Your task to perform on an android device: Open Google Chrome Image 0: 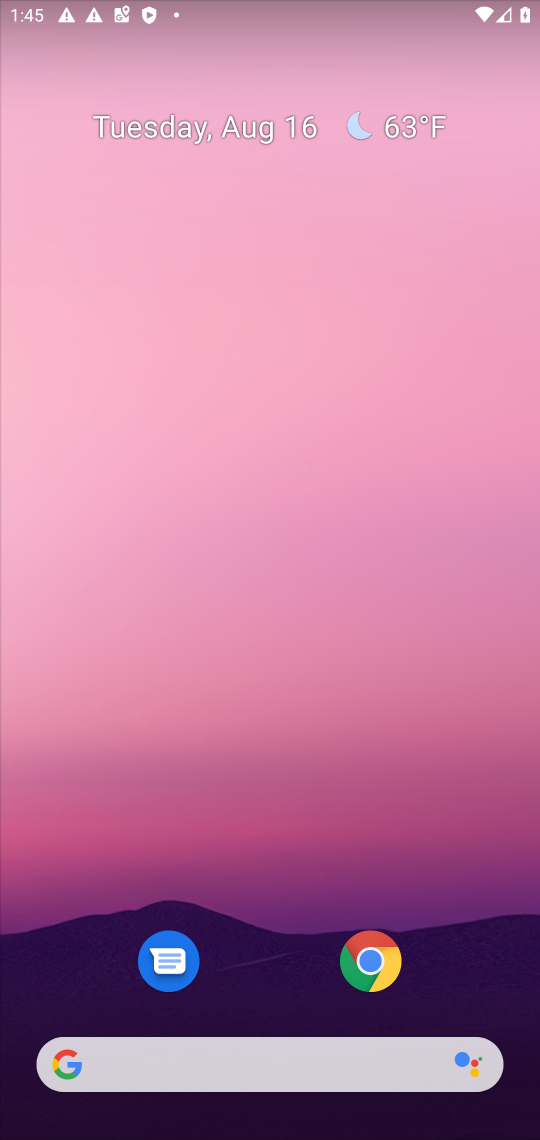
Step 0: drag from (515, 952) to (193, 45)
Your task to perform on an android device: Open Google Chrome Image 1: 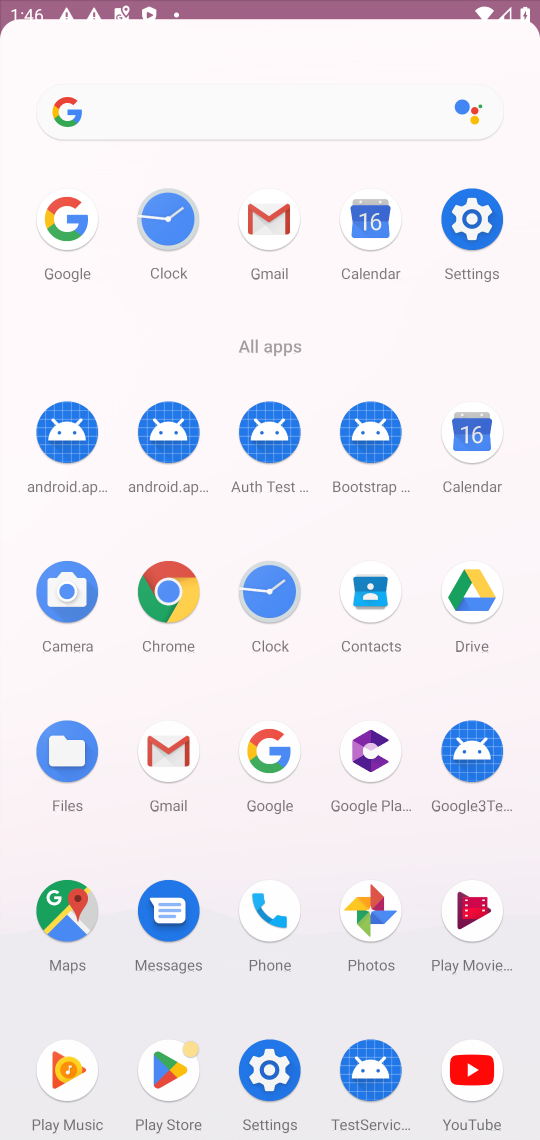
Step 1: click (173, 606)
Your task to perform on an android device: Open Google Chrome Image 2: 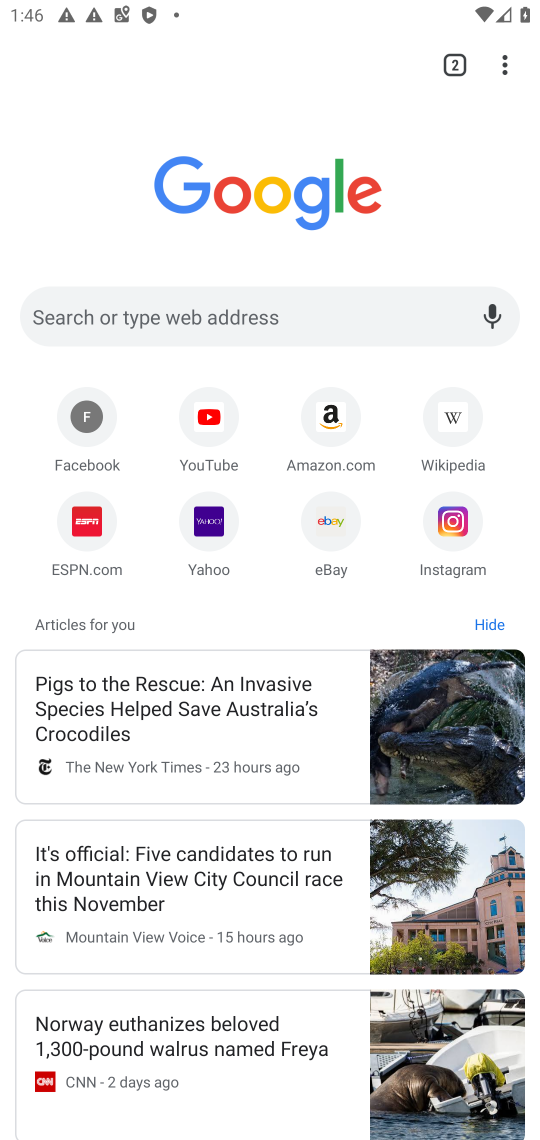
Step 2: task complete